Your task to perform on an android device: toggle data saver in the chrome app Image 0: 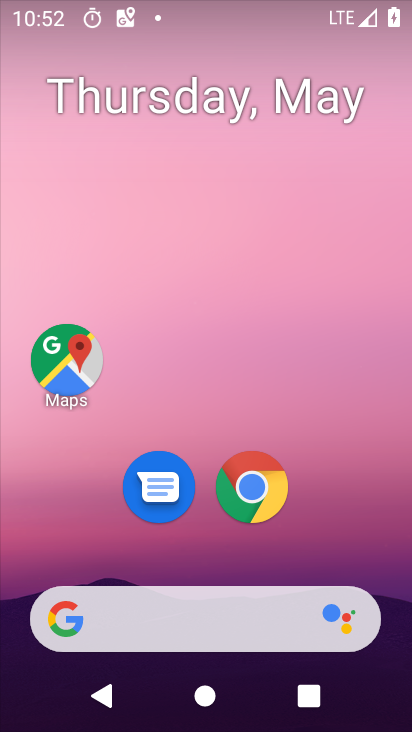
Step 0: drag from (242, 673) to (248, 42)
Your task to perform on an android device: toggle data saver in the chrome app Image 1: 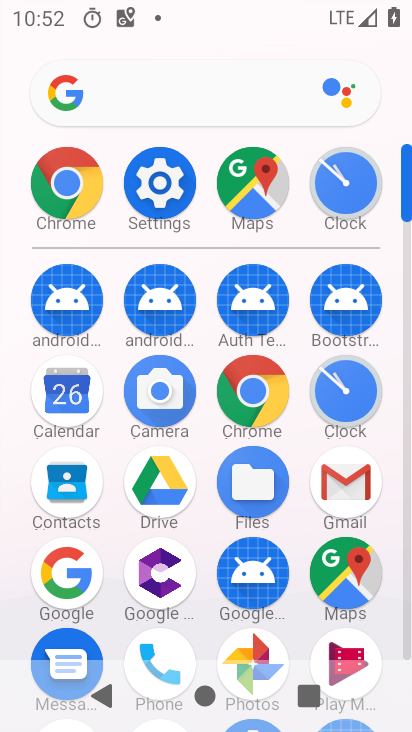
Step 1: click (253, 398)
Your task to perform on an android device: toggle data saver in the chrome app Image 2: 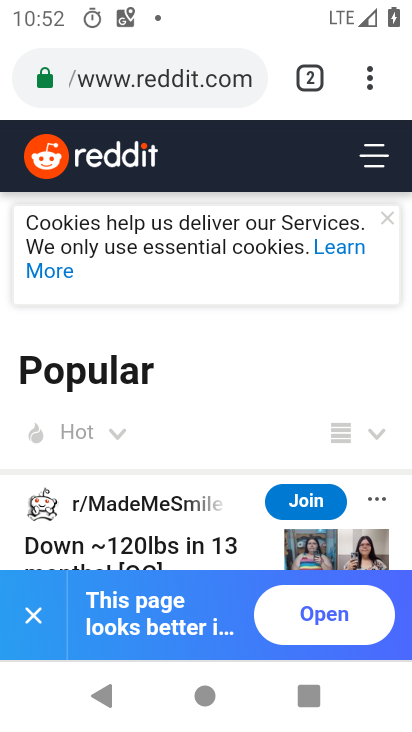
Step 2: click (375, 87)
Your task to perform on an android device: toggle data saver in the chrome app Image 3: 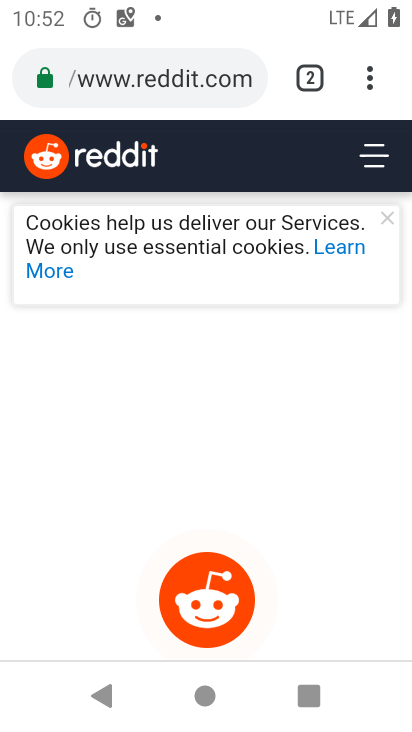
Step 3: click (374, 79)
Your task to perform on an android device: toggle data saver in the chrome app Image 4: 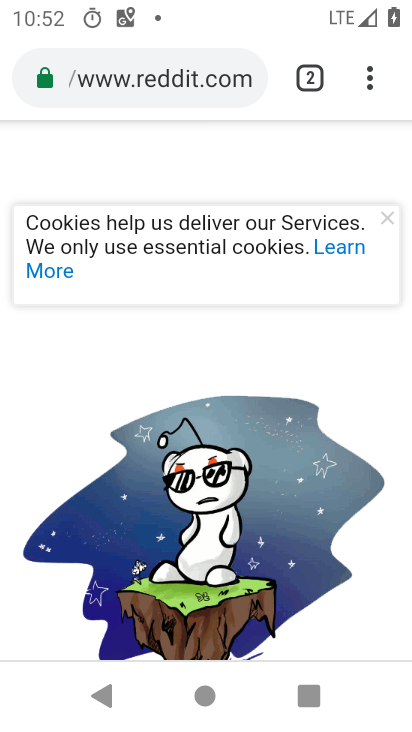
Step 4: click (370, 81)
Your task to perform on an android device: toggle data saver in the chrome app Image 5: 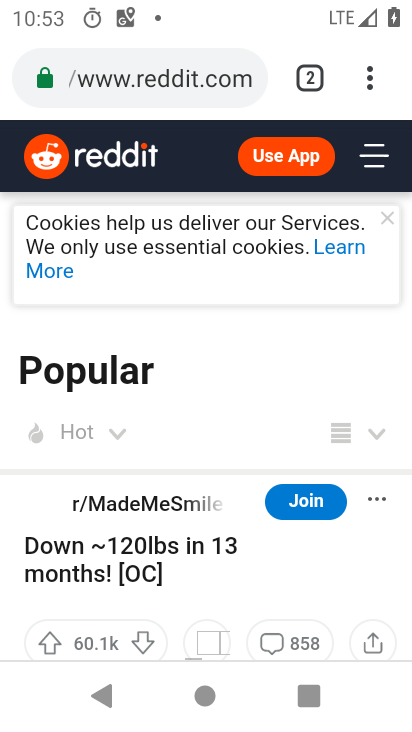
Step 5: click (371, 81)
Your task to perform on an android device: toggle data saver in the chrome app Image 6: 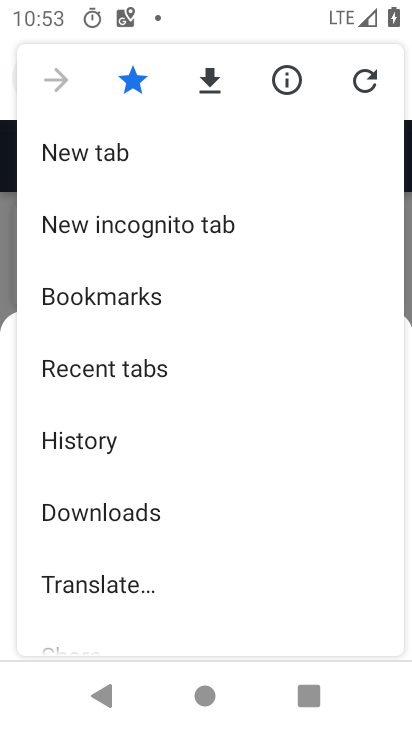
Step 6: drag from (214, 469) to (210, 272)
Your task to perform on an android device: toggle data saver in the chrome app Image 7: 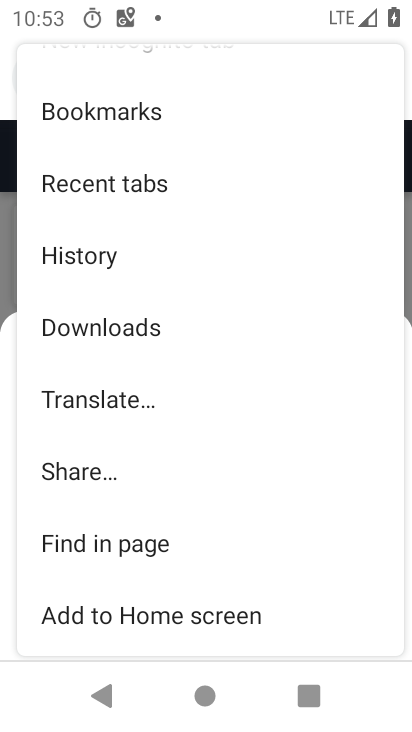
Step 7: drag from (136, 507) to (153, 272)
Your task to perform on an android device: toggle data saver in the chrome app Image 8: 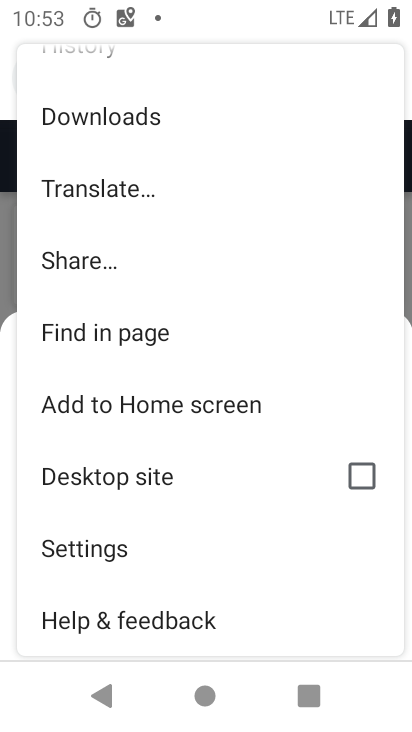
Step 8: click (126, 554)
Your task to perform on an android device: toggle data saver in the chrome app Image 9: 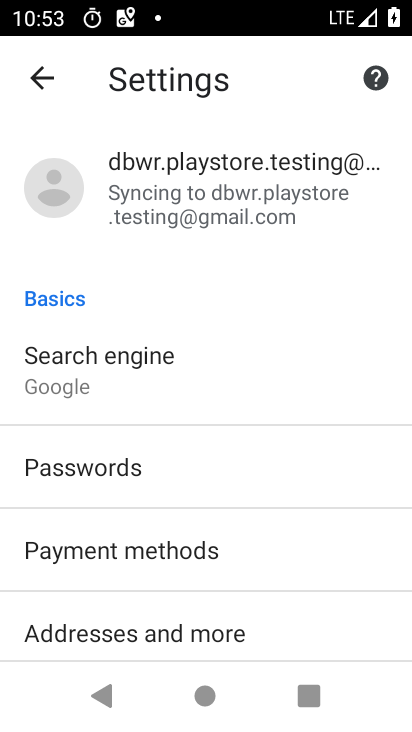
Step 9: drag from (112, 515) to (229, 30)
Your task to perform on an android device: toggle data saver in the chrome app Image 10: 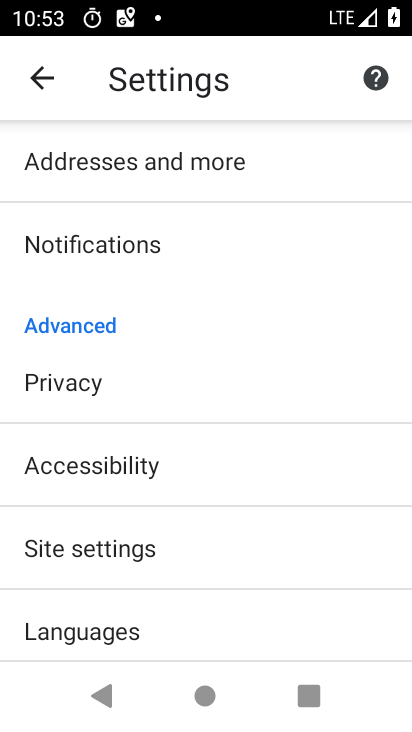
Step 10: drag from (223, 479) to (259, 131)
Your task to perform on an android device: toggle data saver in the chrome app Image 11: 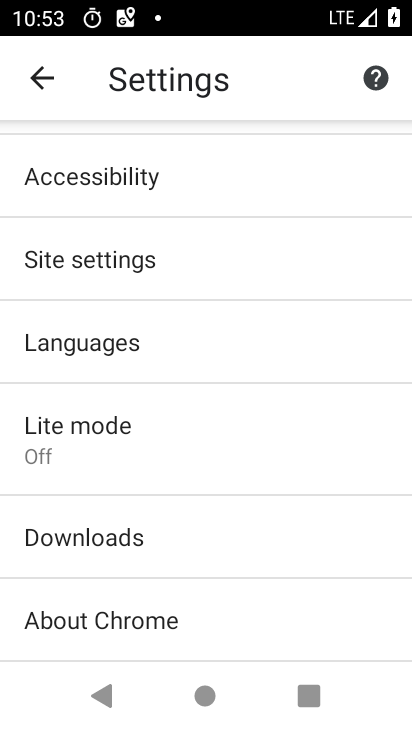
Step 11: drag from (190, 519) to (235, 93)
Your task to perform on an android device: toggle data saver in the chrome app Image 12: 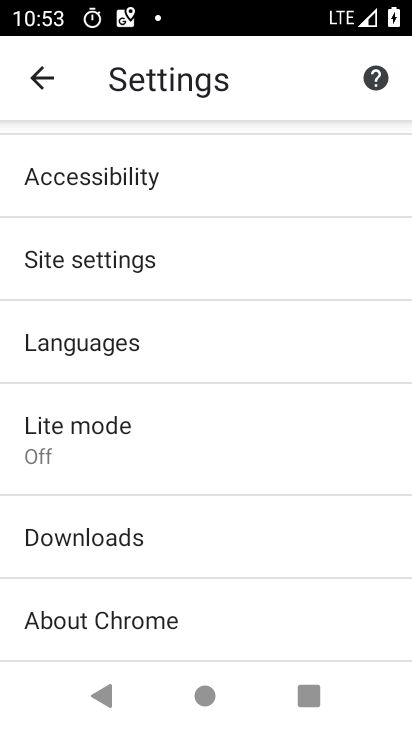
Step 12: click (188, 438)
Your task to perform on an android device: toggle data saver in the chrome app Image 13: 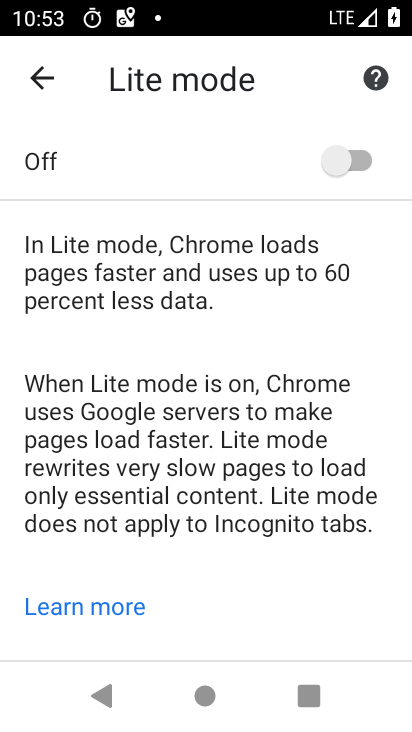
Step 13: click (364, 173)
Your task to perform on an android device: toggle data saver in the chrome app Image 14: 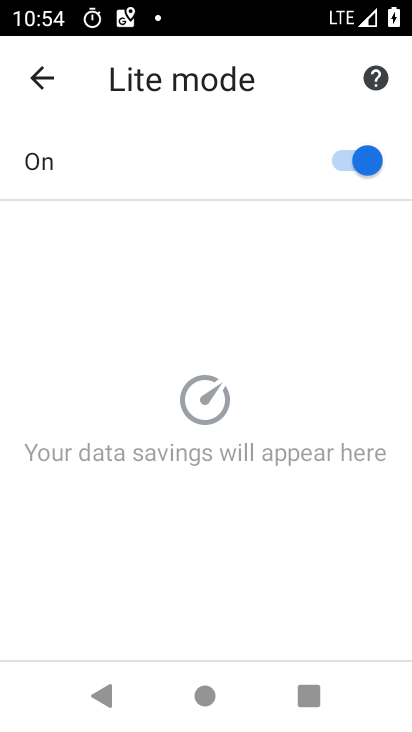
Step 14: task complete